Your task to perform on an android device: Open Wikipedia Image 0: 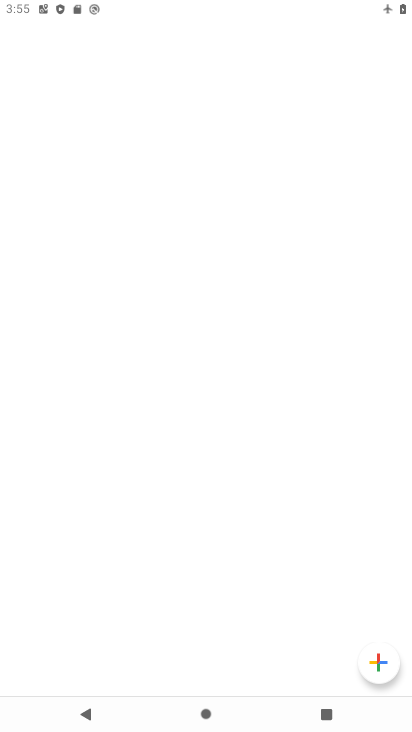
Step 0: click (212, 617)
Your task to perform on an android device: Open Wikipedia Image 1: 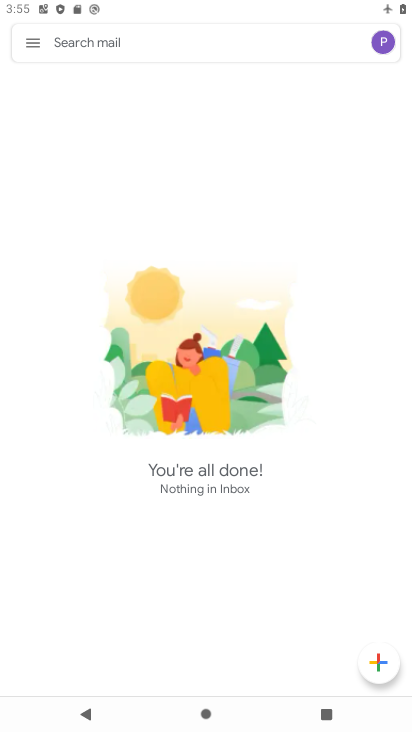
Step 1: press home button
Your task to perform on an android device: Open Wikipedia Image 2: 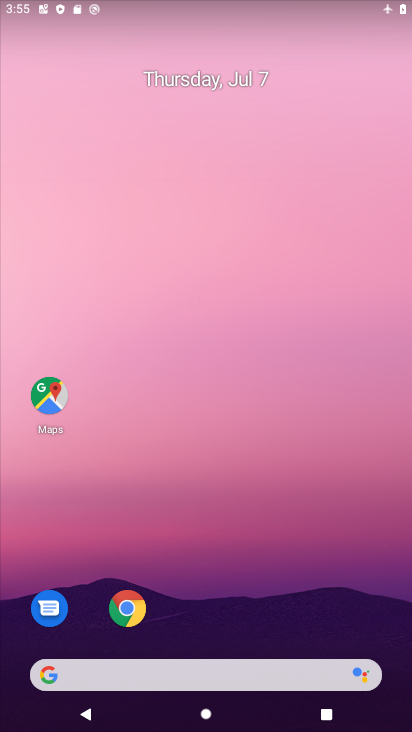
Step 2: drag from (221, 610) to (220, 136)
Your task to perform on an android device: Open Wikipedia Image 3: 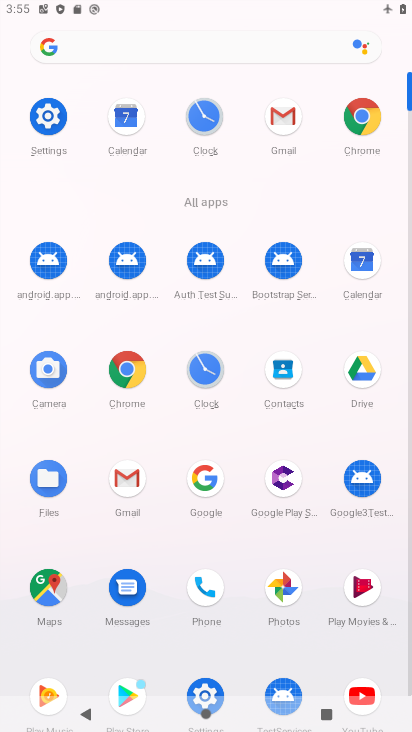
Step 3: click (365, 123)
Your task to perform on an android device: Open Wikipedia Image 4: 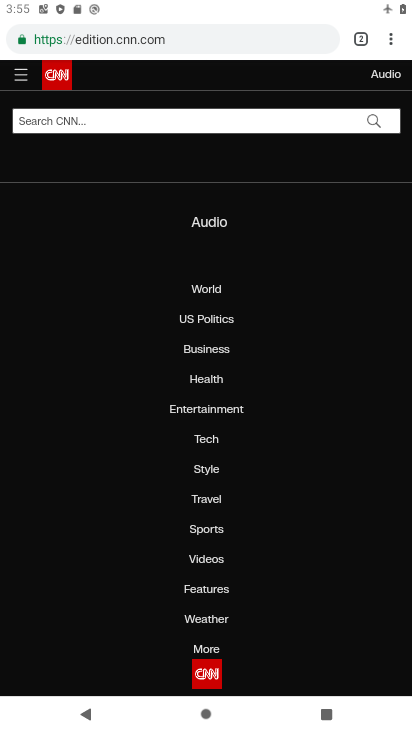
Step 4: click (387, 39)
Your task to perform on an android device: Open Wikipedia Image 5: 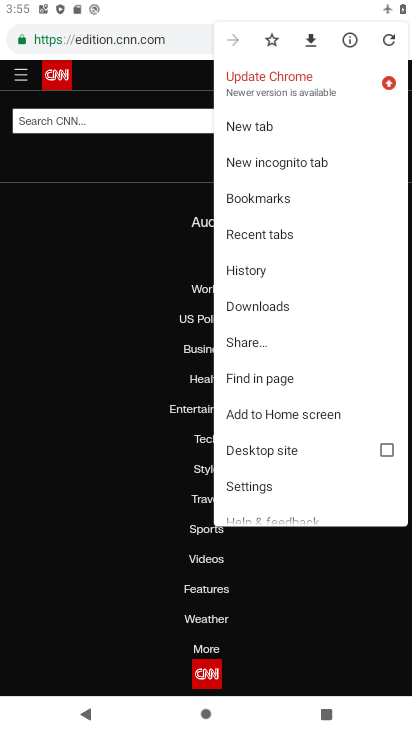
Step 5: click (265, 126)
Your task to perform on an android device: Open Wikipedia Image 6: 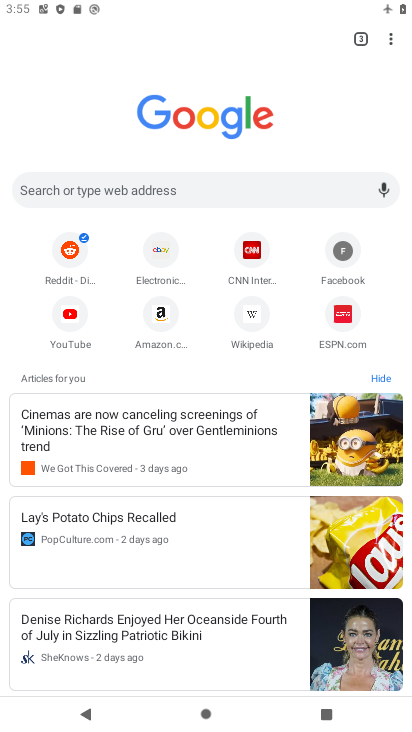
Step 6: click (245, 328)
Your task to perform on an android device: Open Wikipedia Image 7: 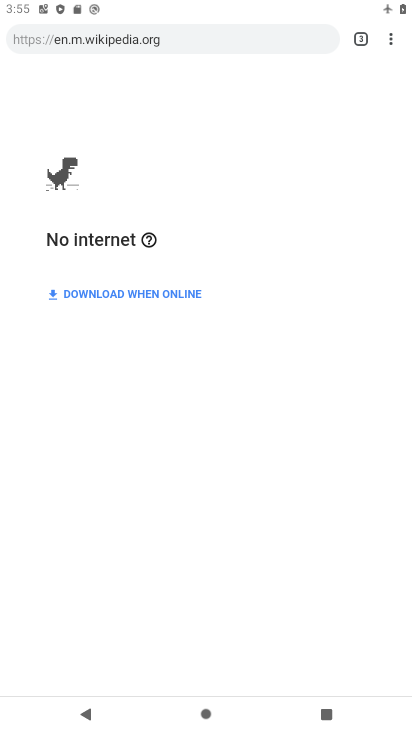
Step 7: task complete